Your task to perform on an android device: turn pop-ups on in chrome Image 0: 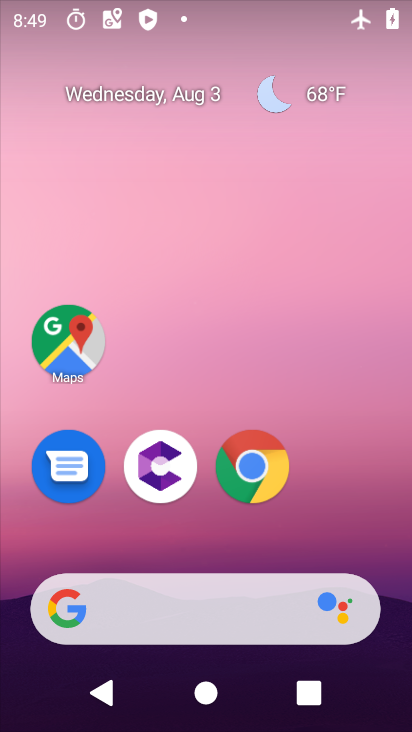
Step 0: drag from (337, 517) to (321, 8)
Your task to perform on an android device: turn pop-ups on in chrome Image 1: 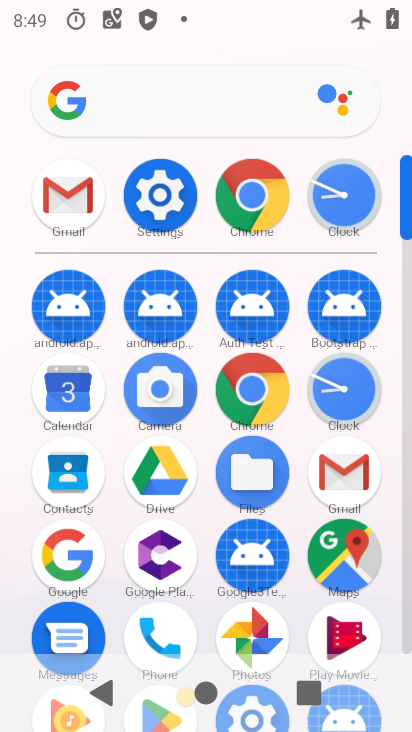
Step 1: click (256, 392)
Your task to perform on an android device: turn pop-ups on in chrome Image 2: 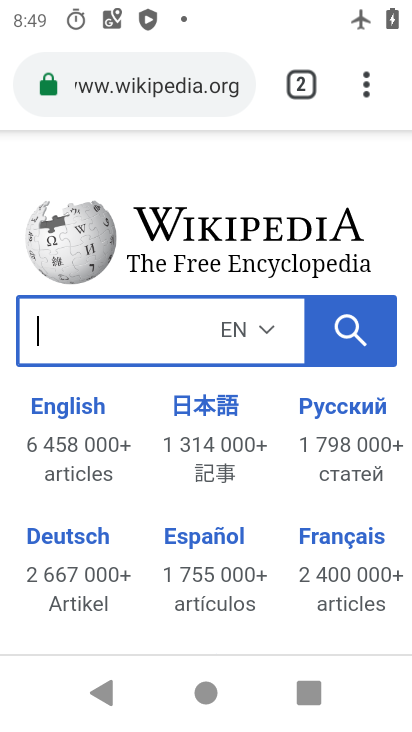
Step 2: drag from (372, 82) to (173, 478)
Your task to perform on an android device: turn pop-ups on in chrome Image 3: 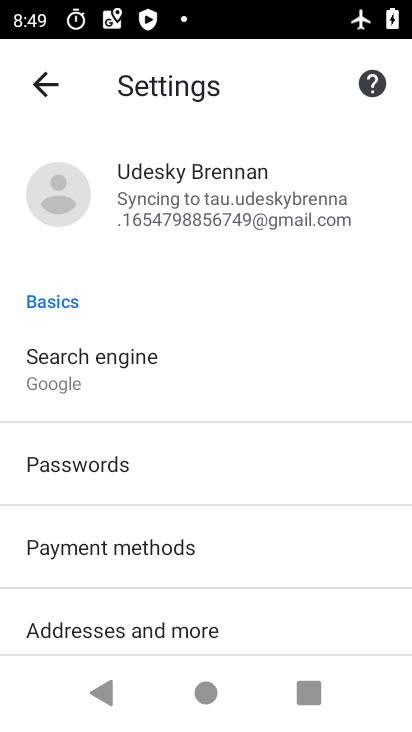
Step 3: drag from (209, 552) to (313, 108)
Your task to perform on an android device: turn pop-ups on in chrome Image 4: 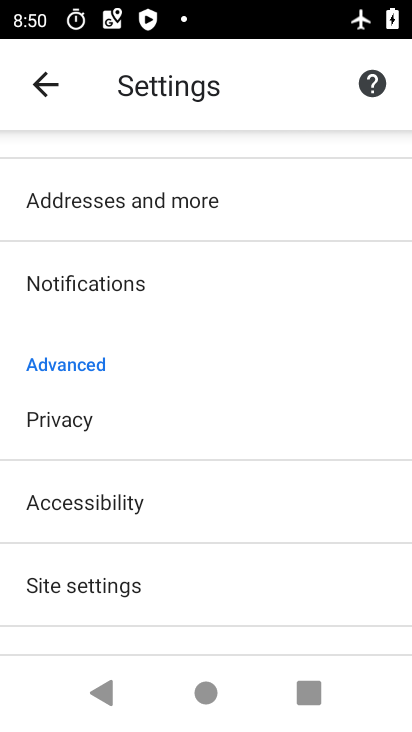
Step 4: drag from (192, 629) to (276, 264)
Your task to perform on an android device: turn pop-ups on in chrome Image 5: 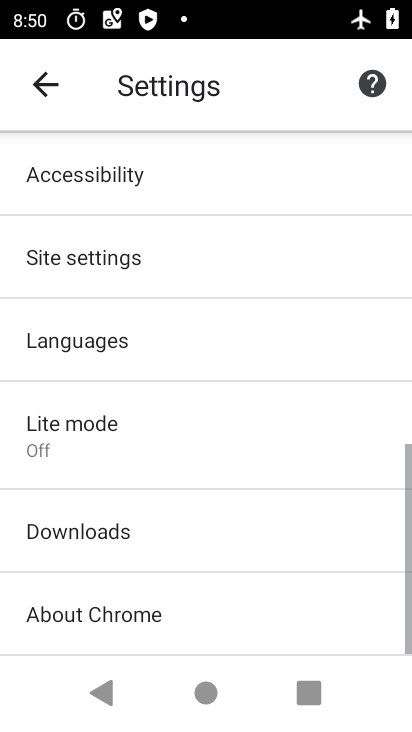
Step 5: click (133, 260)
Your task to perform on an android device: turn pop-ups on in chrome Image 6: 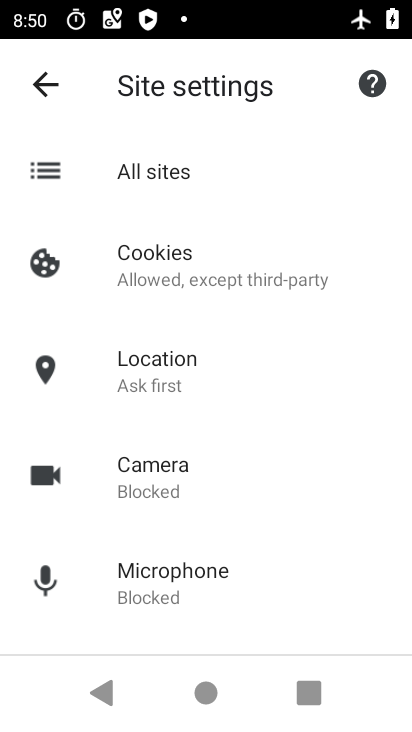
Step 6: drag from (291, 592) to (323, 200)
Your task to perform on an android device: turn pop-ups on in chrome Image 7: 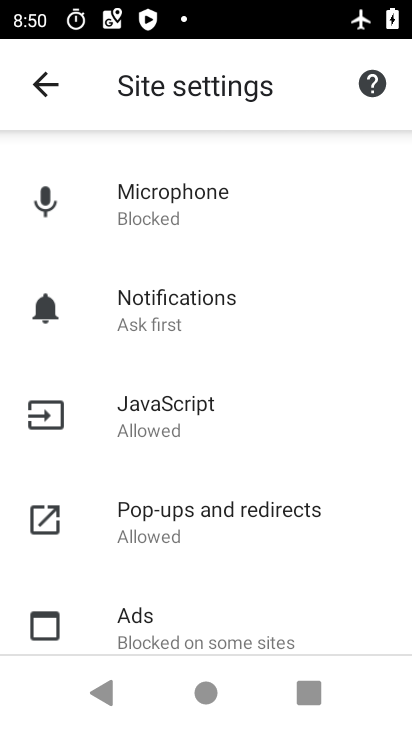
Step 7: click (207, 526)
Your task to perform on an android device: turn pop-ups on in chrome Image 8: 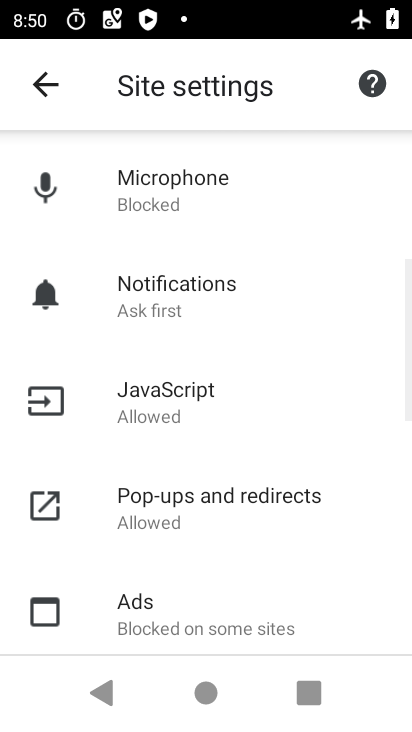
Step 8: click (215, 499)
Your task to perform on an android device: turn pop-ups on in chrome Image 9: 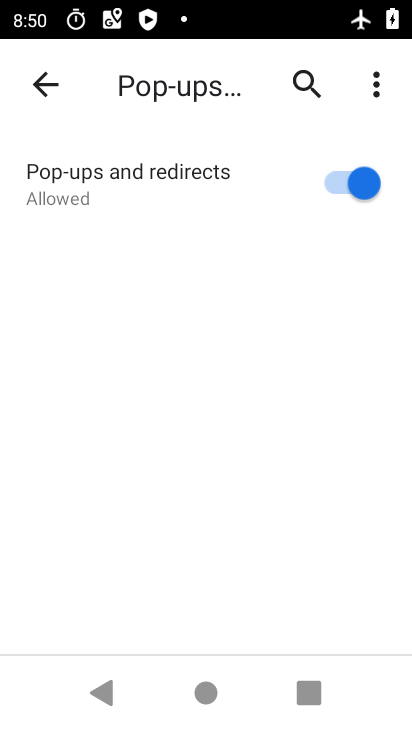
Step 9: task complete